Your task to perform on an android device: Go to Amazon Image 0: 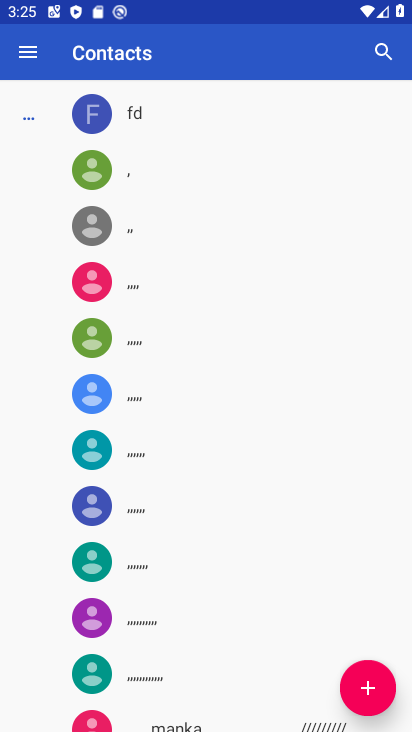
Step 0: drag from (237, 549) to (227, 349)
Your task to perform on an android device: Go to Amazon Image 1: 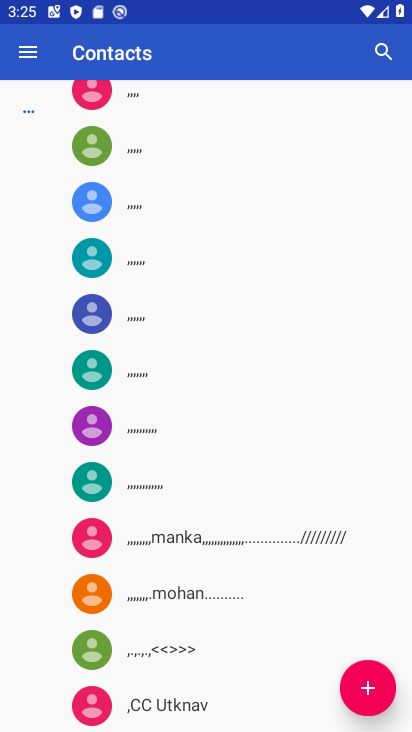
Step 1: press home button
Your task to perform on an android device: Go to Amazon Image 2: 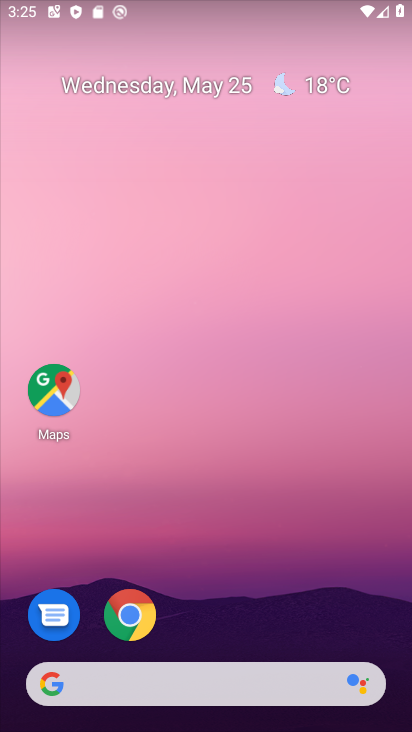
Step 2: click (122, 613)
Your task to perform on an android device: Go to Amazon Image 3: 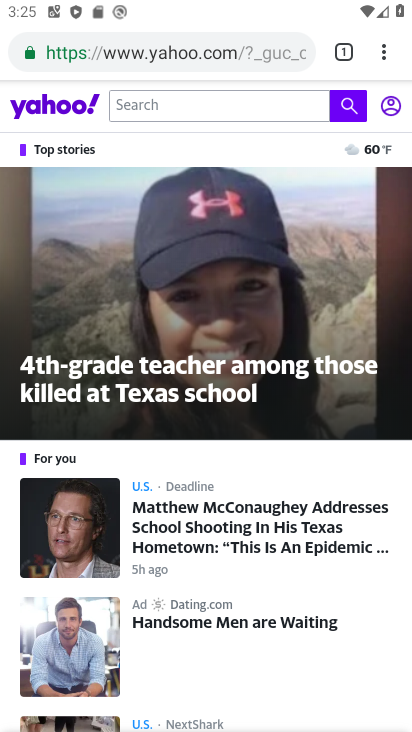
Step 3: click (348, 54)
Your task to perform on an android device: Go to Amazon Image 4: 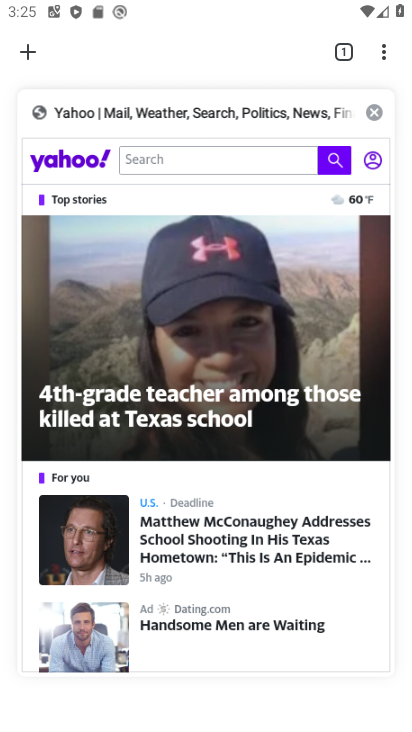
Step 4: click (373, 114)
Your task to perform on an android device: Go to Amazon Image 5: 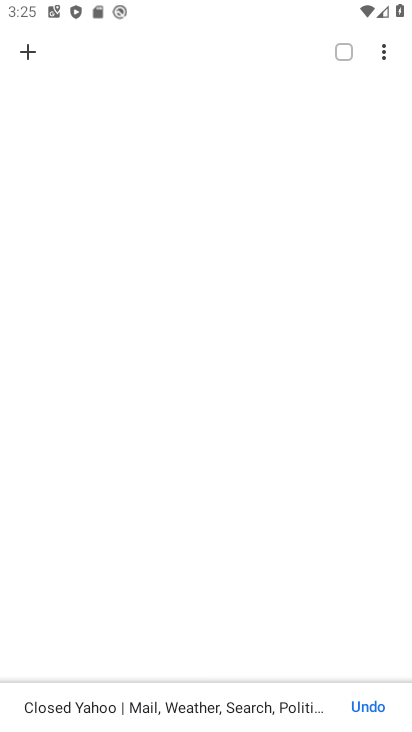
Step 5: click (25, 60)
Your task to perform on an android device: Go to Amazon Image 6: 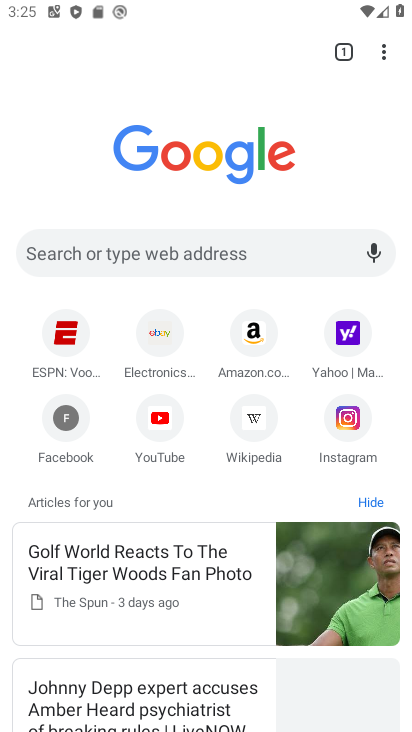
Step 6: click (270, 330)
Your task to perform on an android device: Go to Amazon Image 7: 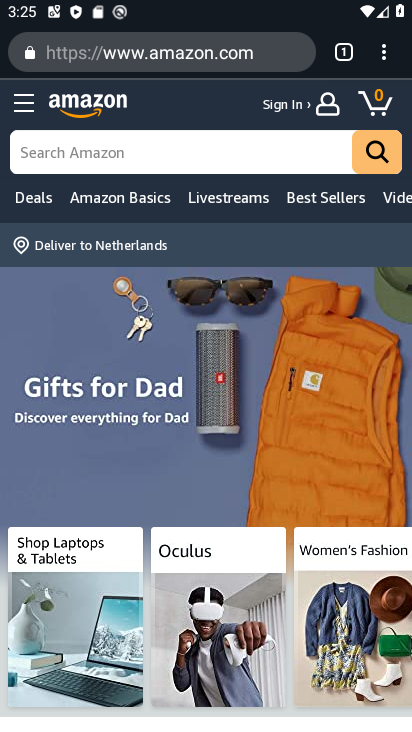
Step 7: task complete